Your task to perform on an android device: Find coffee shops on Maps Image 0: 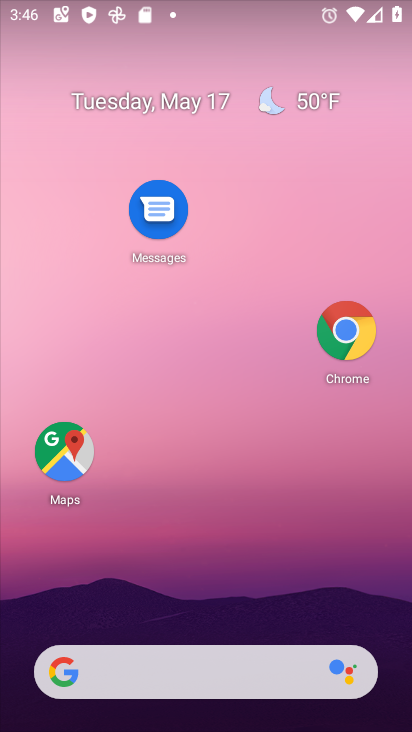
Step 0: click (69, 471)
Your task to perform on an android device: Find coffee shops on Maps Image 1: 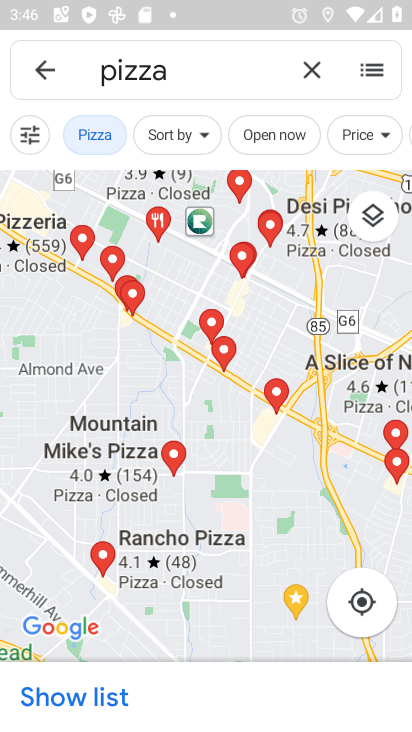
Step 1: click (298, 58)
Your task to perform on an android device: Find coffee shops on Maps Image 2: 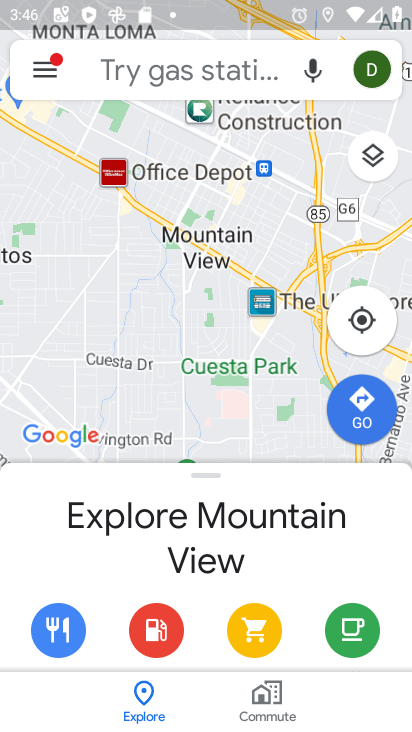
Step 2: click (219, 63)
Your task to perform on an android device: Find coffee shops on Maps Image 3: 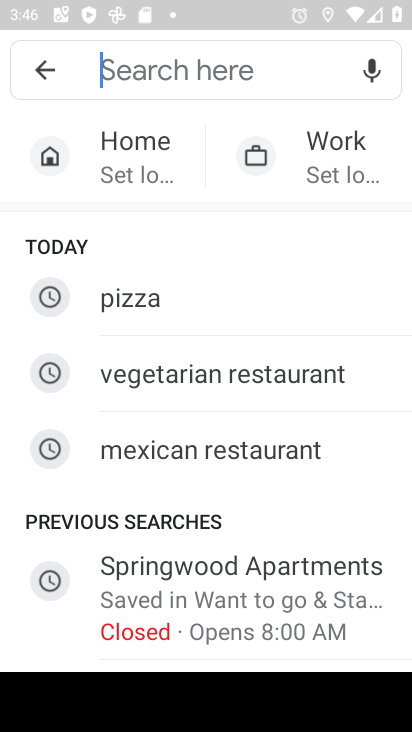
Step 3: type "coffee.com"
Your task to perform on an android device: Find coffee shops on Maps Image 4: 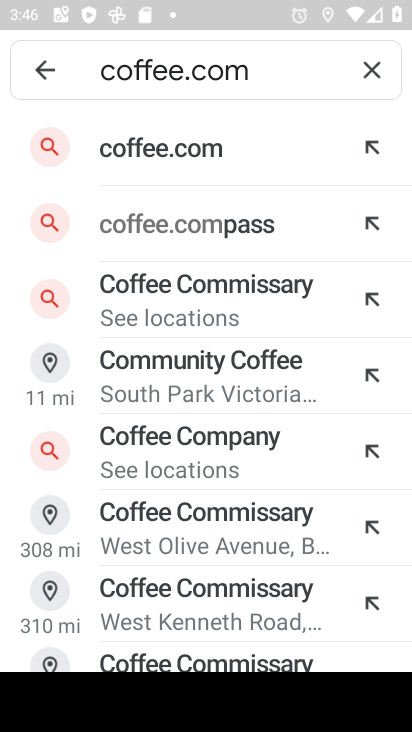
Step 4: click (173, 282)
Your task to perform on an android device: Find coffee shops on Maps Image 5: 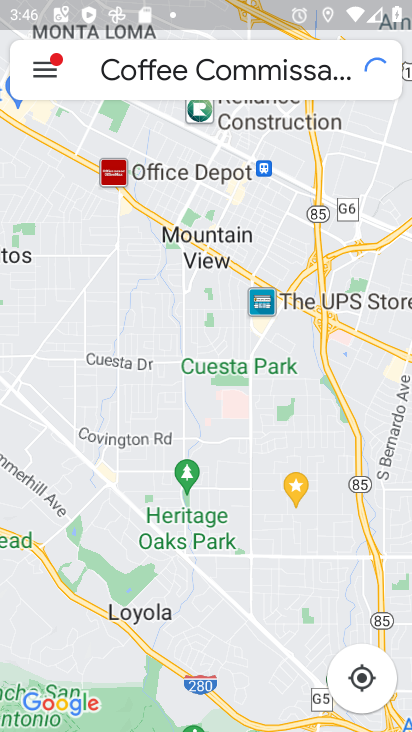
Step 5: task complete